Your task to perform on an android device: refresh tabs in the chrome app Image 0: 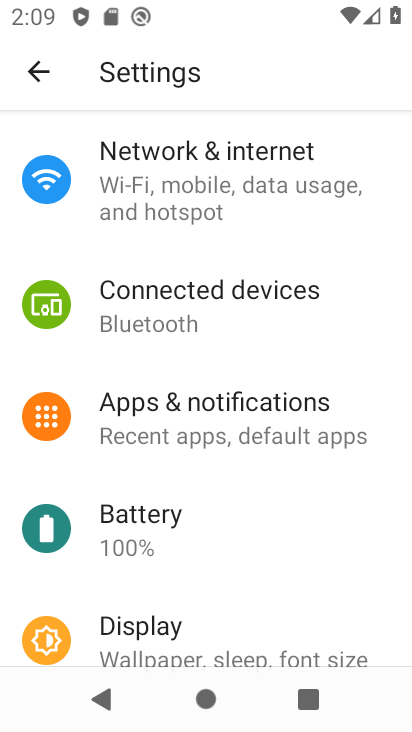
Step 0: press home button
Your task to perform on an android device: refresh tabs in the chrome app Image 1: 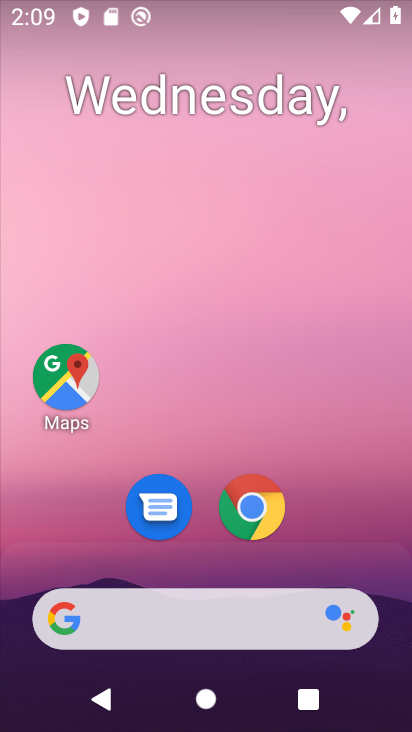
Step 1: click (254, 502)
Your task to perform on an android device: refresh tabs in the chrome app Image 2: 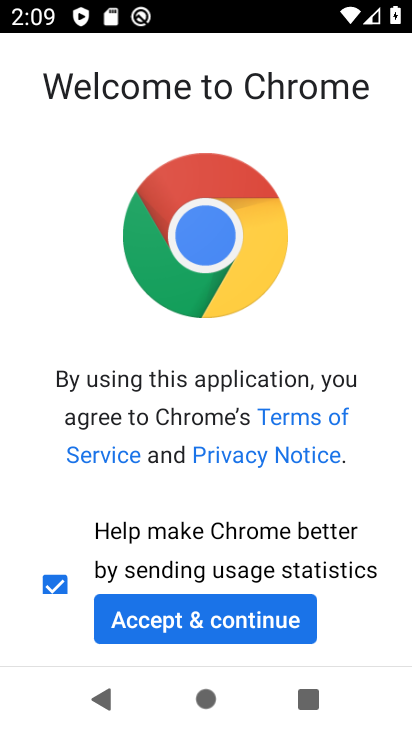
Step 2: drag from (348, 615) to (254, 272)
Your task to perform on an android device: refresh tabs in the chrome app Image 3: 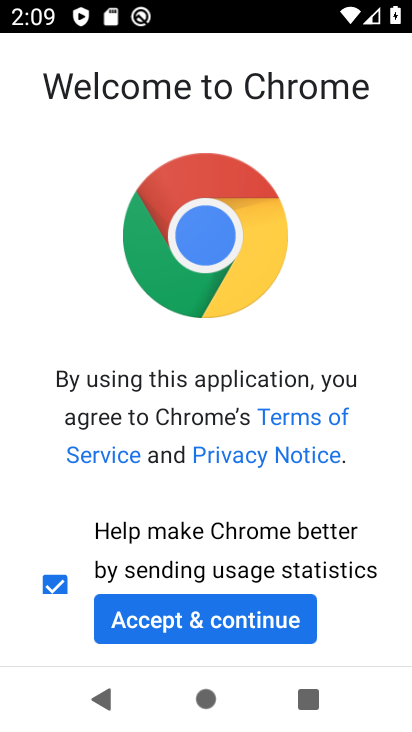
Step 3: click (172, 616)
Your task to perform on an android device: refresh tabs in the chrome app Image 4: 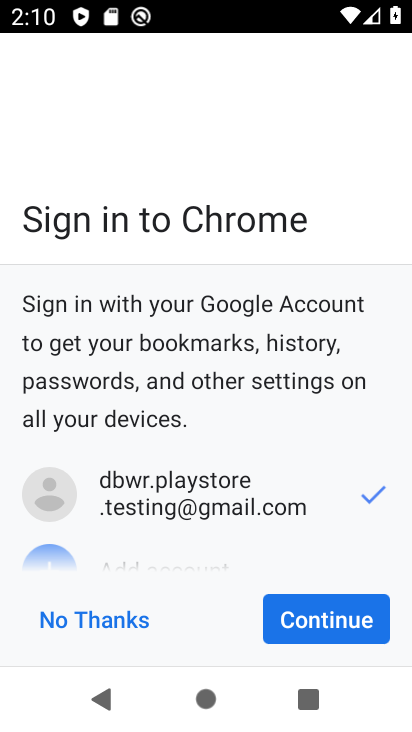
Step 4: click (324, 609)
Your task to perform on an android device: refresh tabs in the chrome app Image 5: 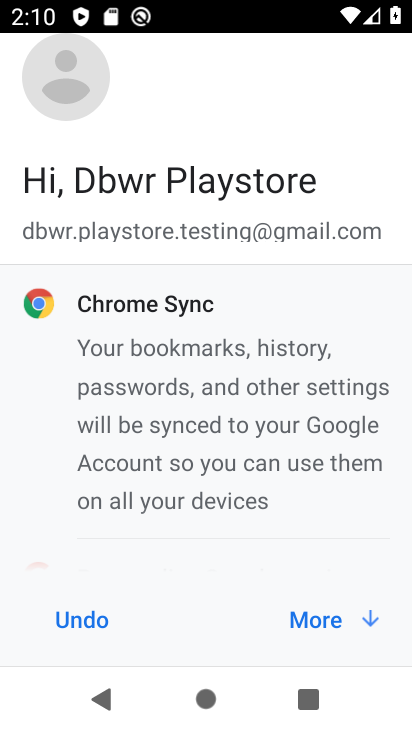
Step 5: click (311, 619)
Your task to perform on an android device: refresh tabs in the chrome app Image 6: 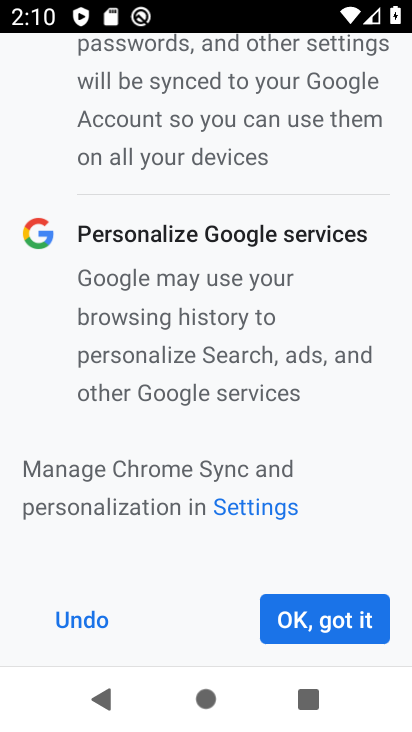
Step 6: click (311, 619)
Your task to perform on an android device: refresh tabs in the chrome app Image 7: 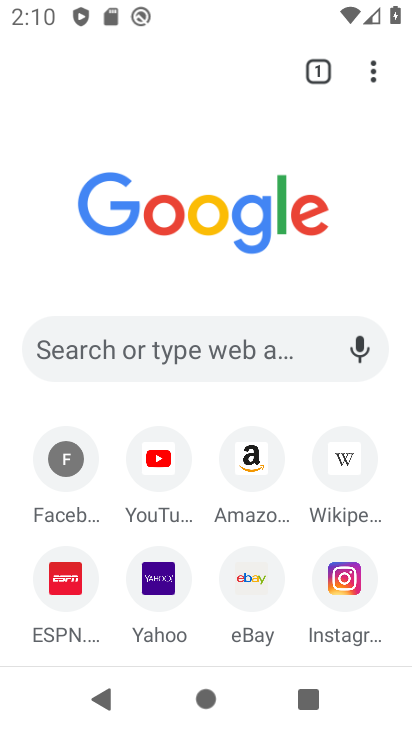
Step 7: click (376, 75)
Your task to perform on an android device: refresh tabs in the chrome app Image 8: 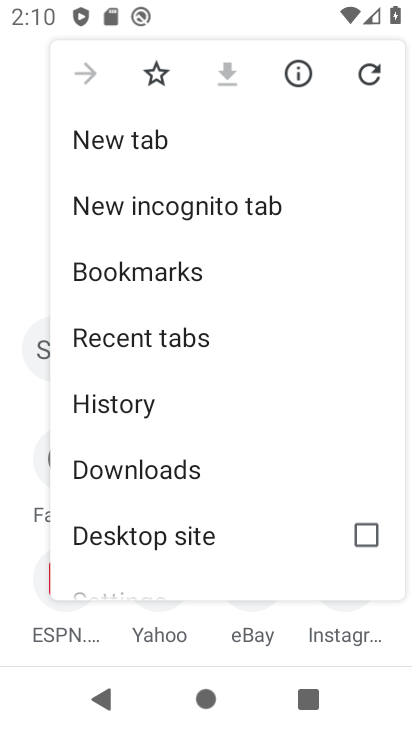
Step 8: click (366, 74)
Your task to perform on an android device: refresh tabs in the chrome app Image 9: 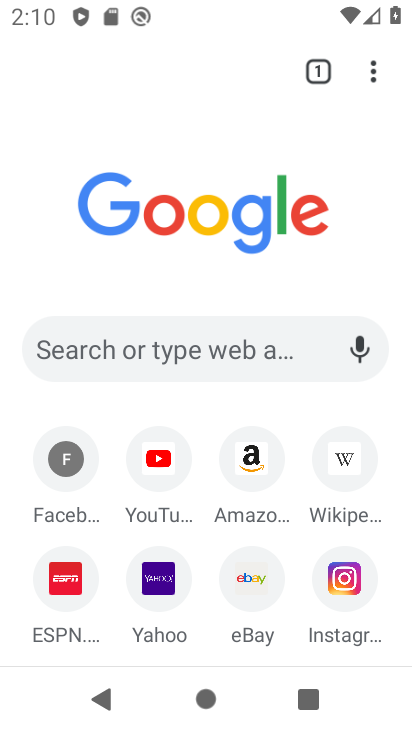
Step 9: click (367, 71)
Your task to perform on an android device: refresh tabs in the chrome app Image 10: 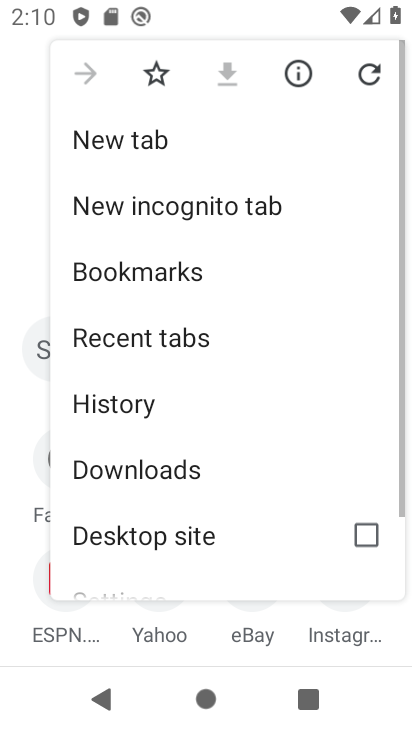
Step 10: click (367, 71)
Your task to perform on an android device: refresh tabs in the chrome app Image 11: 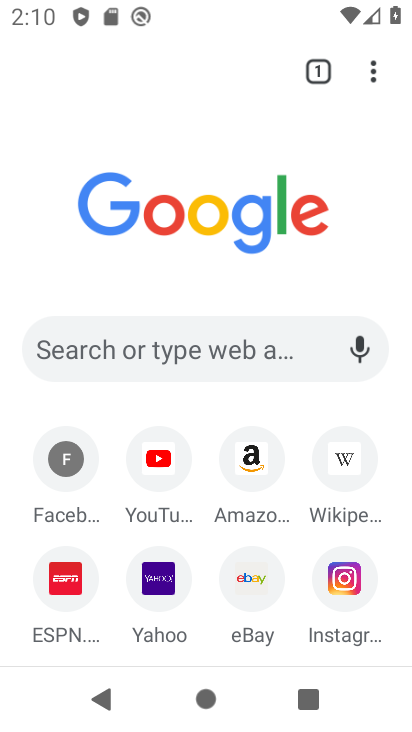
Step 11: task complete